Your task to perform on an android device: add a contact in the contacts app Image 0: 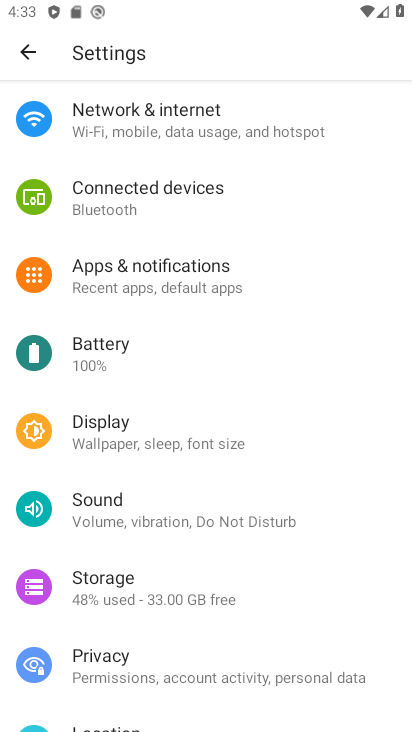
Step 0: press back button
Your task to perform on an android device: add a contact in the contacts app Image 1: 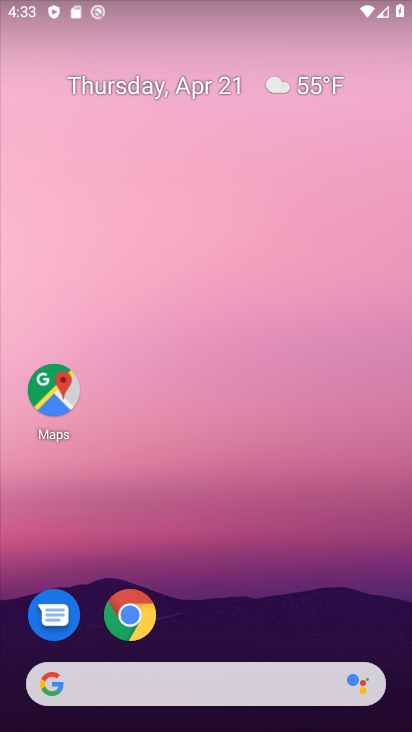
Step 1: drag from (250, 600) to (166, 3)
Your task to perform on an android device: add a contact in the contacts app Image 2: 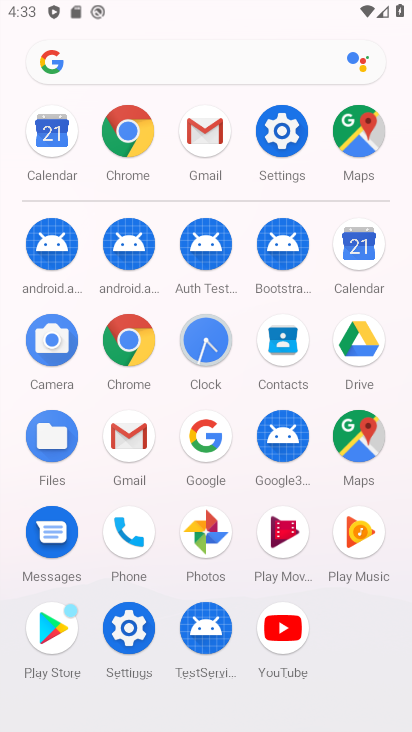
Step 2: drag from (13, 578) to (20, 299)
Your task to perform on an android device: add a contact in the contacts app Image 3: 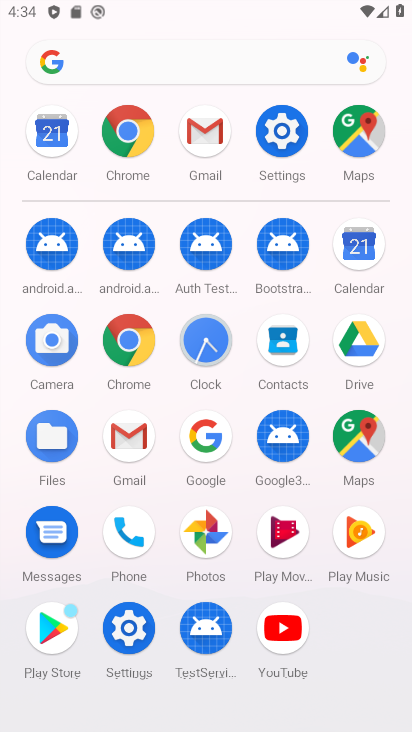
Step 3: click (280, 338)
Your task to perform on an android device: add a contact in the contacts app Image 4: 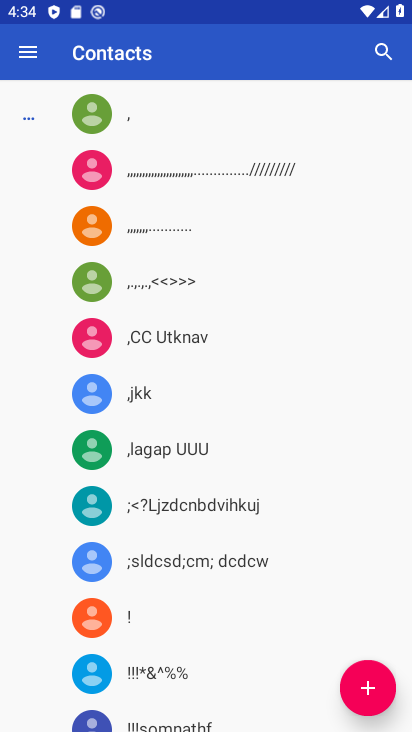
Step 4: click (352, 686)
Your task to perform on an android device: add a contact in the contacts app Image 5: 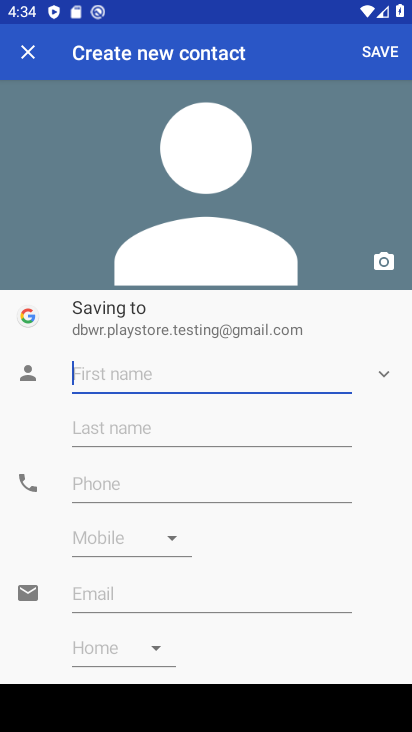
Step 5: type "Kfgfd"
Your task to perform on an android device: add a contact in the contacts app Image 6: 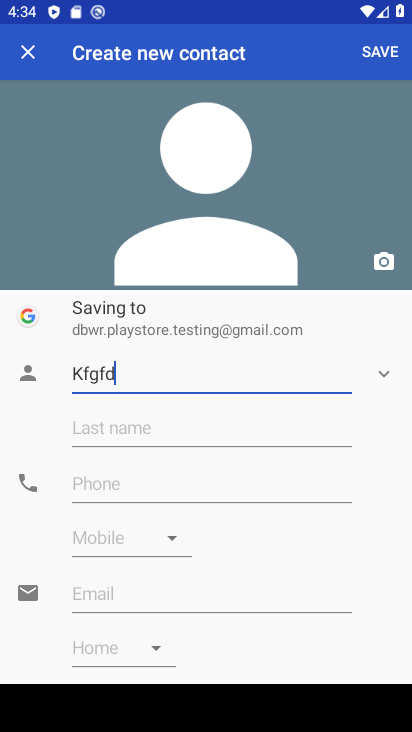
Step 6: type ""
Your task to perform on an android device: add a contact in the contacts app Image 7: 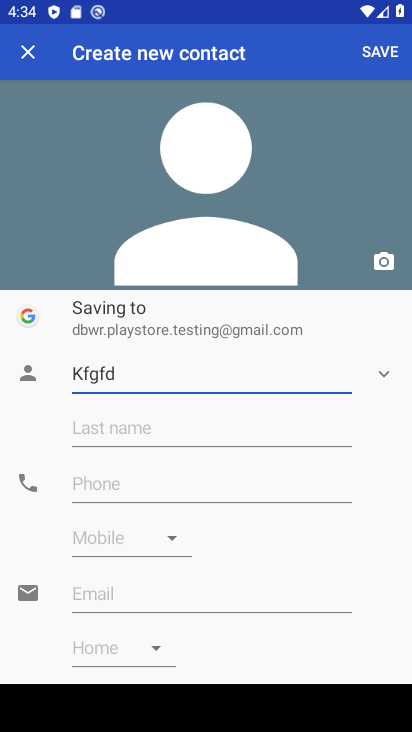
Step 7: click (143, 482)
Your task to perform on an android device: add a contact in the contacts app Image 8: 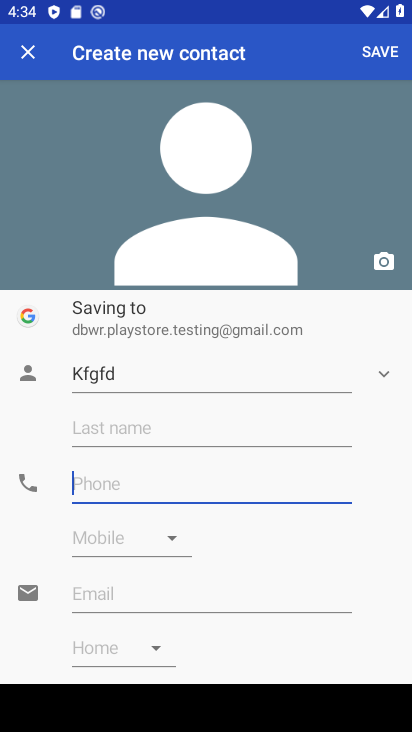
Step 8: type "7877565464"
Your task to perform on an android device: add a contact in the contacts app Image 9: 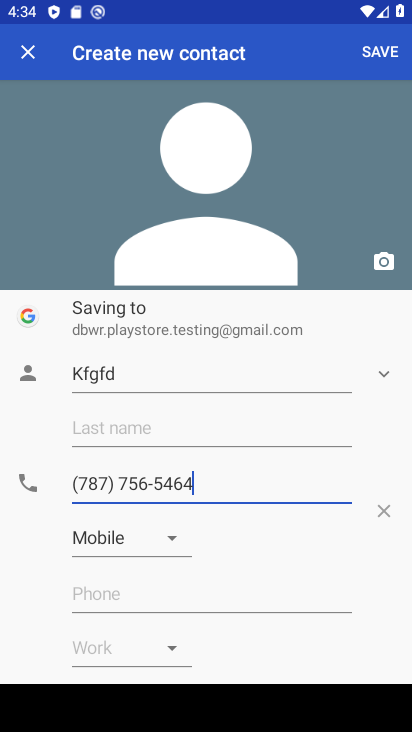
Step 9: click (377, 58)
Your task to perform on an android device: add a contact in the contacts app Image 10: 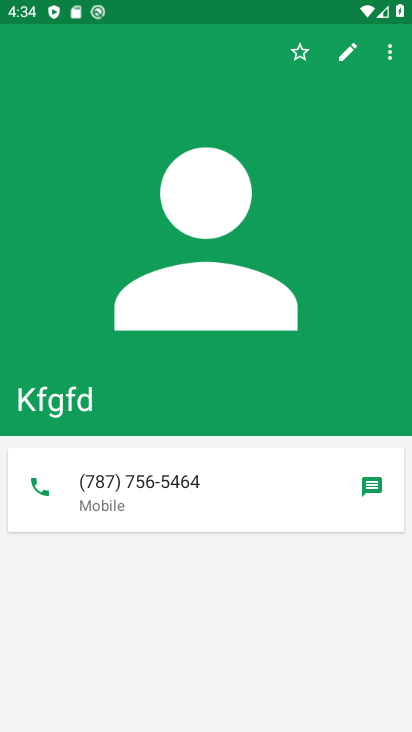
Step 10: task complete